Your task to perform on an android device: find photos in the google photos app Image 0: 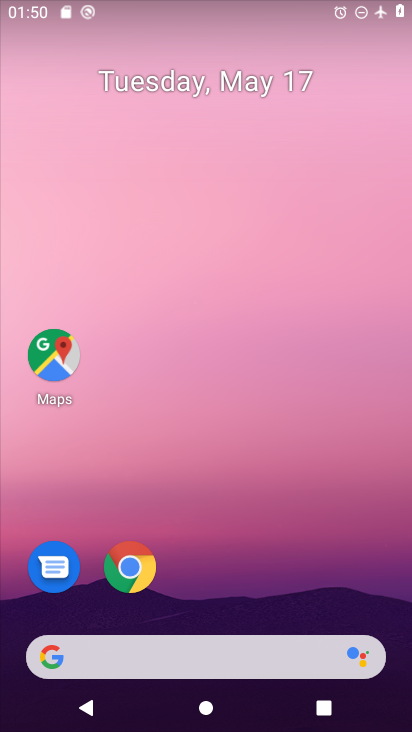
Step 0: drag from (257, 520) to (160, 35)
Your task to perform on an android device: find photos in the google photos app Image 1: 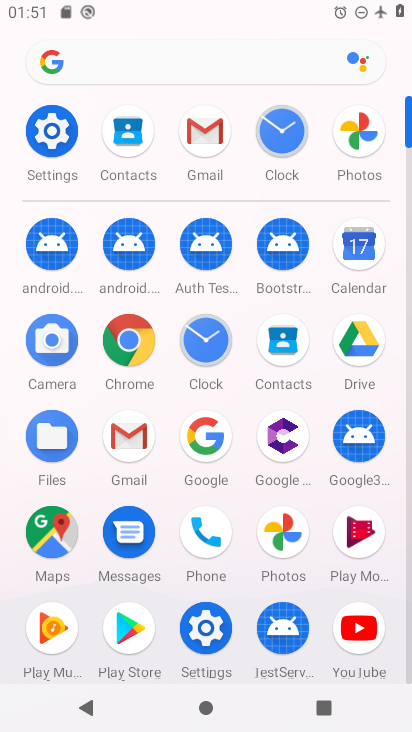
Step 1: click (282, 530)
Your task to perform on an android device: find photos in the google photos app Image 2: 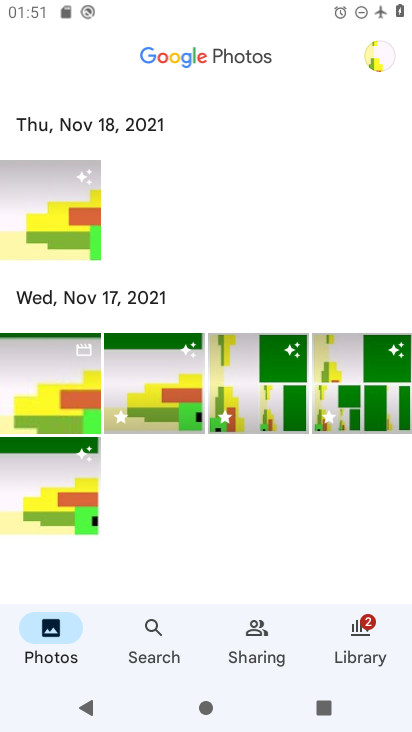
Step 2: click (152, 616)
Your task to perform on an android device: find photos in the google photos app Image 3: 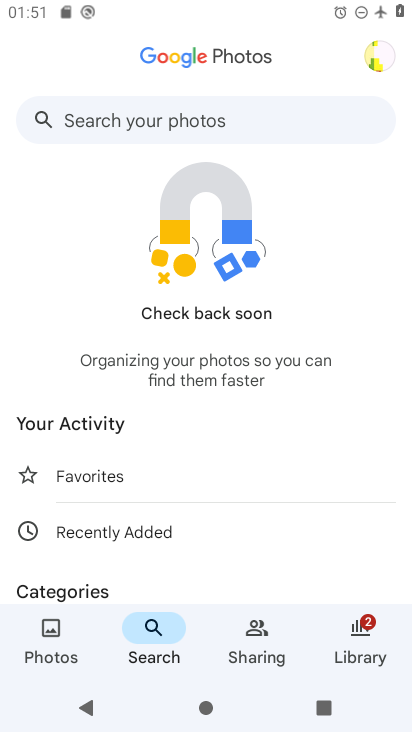
Step 3: task complete